Your task to perform on an android device: move a message to another label in the gmail app Image 0: 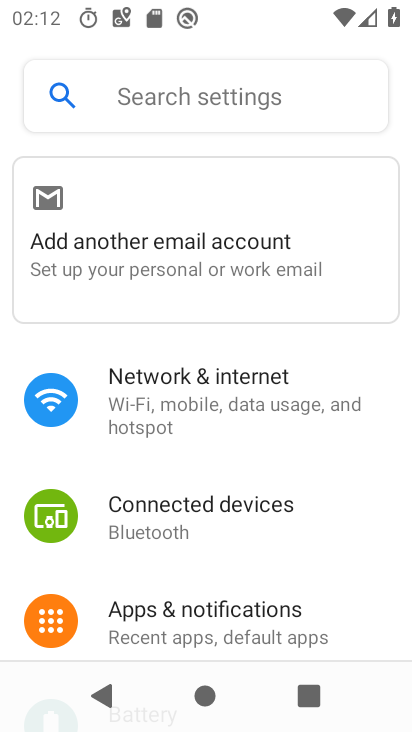
Step 0: drag from (129, 599) to (291, 10)
Your task to perform on an android device: move a message to another label in the gmail app Image 1: 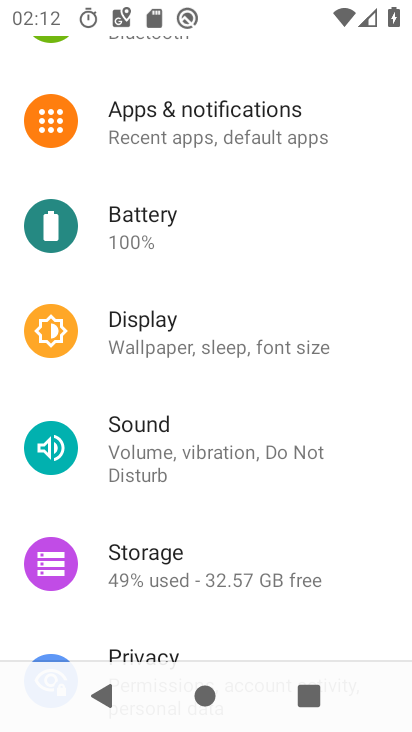
Step 1: drag from (278, 215) to (333, 546)
Your task to perform on an android device: move a message to another label in the gmail app Image 2: 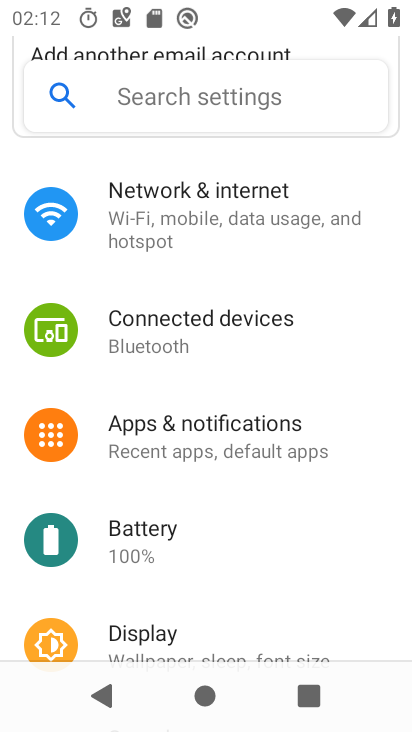
Step 2: press home button
Your task to perform on an android device: move a message to another label in the gmail app Image 3: 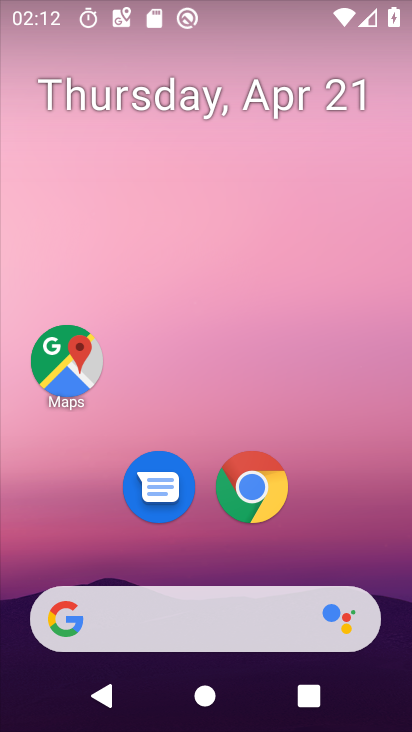
Step 3: drag from (216, 541) to (353, 17)
Your task to perform on an android device: move a message to another label in the gmail app Image 4: 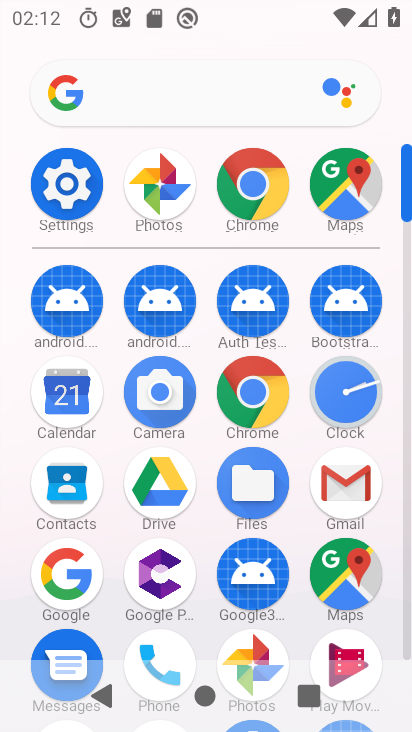
Step 4: click (329, 483)
Your task to perform on an android device: move a message to another label in the gmail app Image 5: 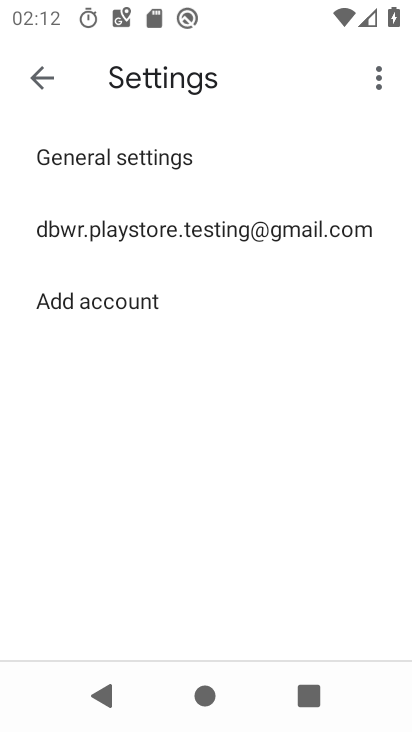
Step 5: click (175, 210)
Your task to perform on an android device: move a message to another label in the gmail app Image 6: 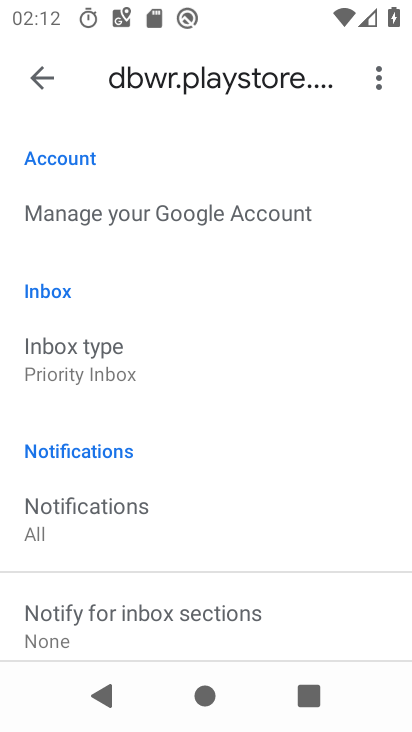
Step 6: drag from (151, 455) to (163, 180)
Your task to perform on an android device: move a message to another label in the gmail app Image 7: 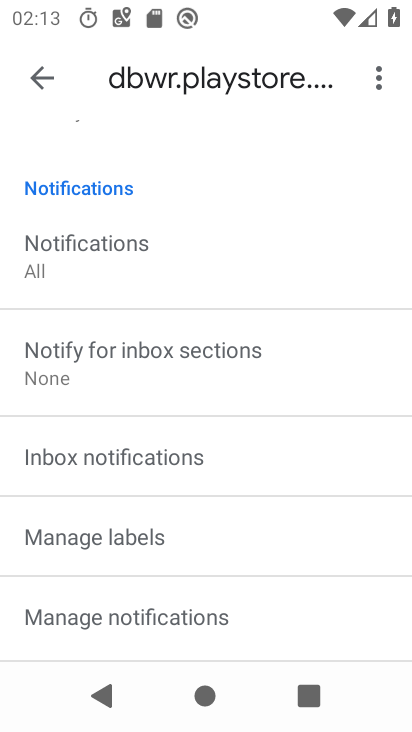
Step 7: click (29, 54)
Your task to perform on an android device: move a message to another label in the gmail app Image 8: 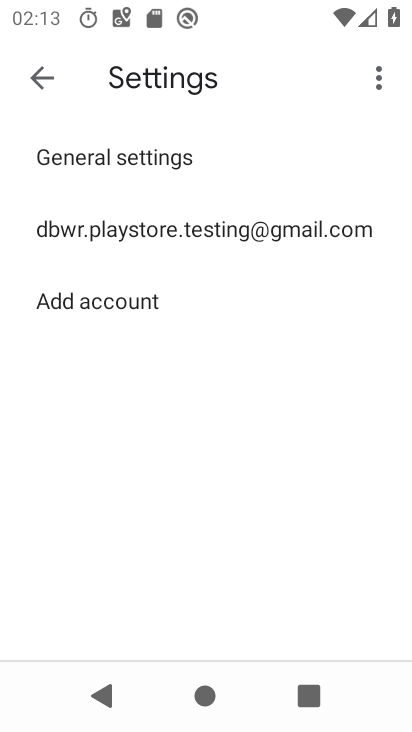
Step 8: click (36, 59)
Your task to perform on an android device: move a message to another label in the gmail app Image 9: 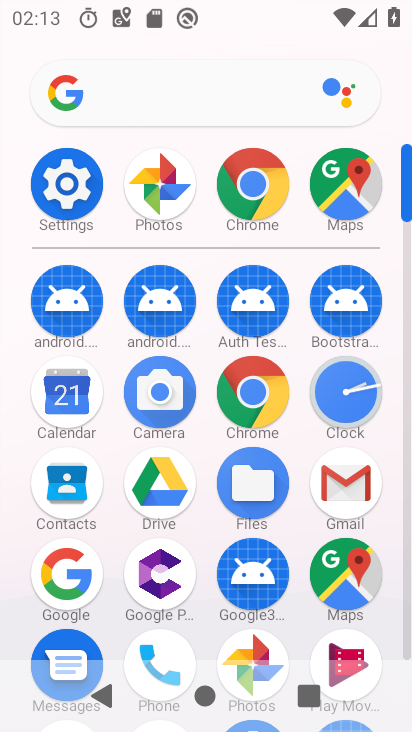
Step 9: click (343, 486)
Your task to perform on an android device: move a message to another label in the gmail app Image 10: 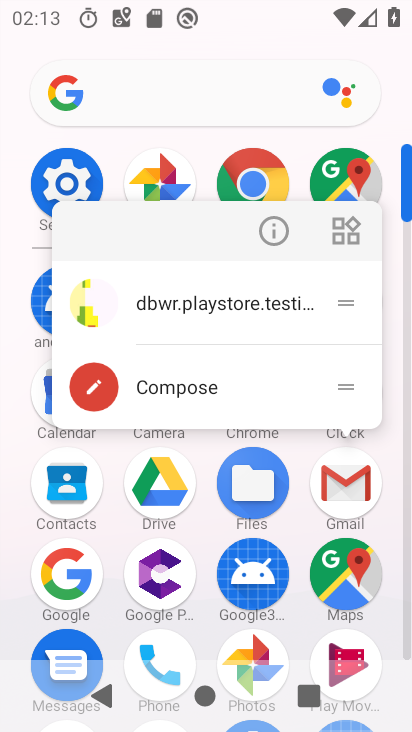
Step 10: click (273, 228)
Your task to perform on an android device: move a message to another label in the gmail app Image 11: 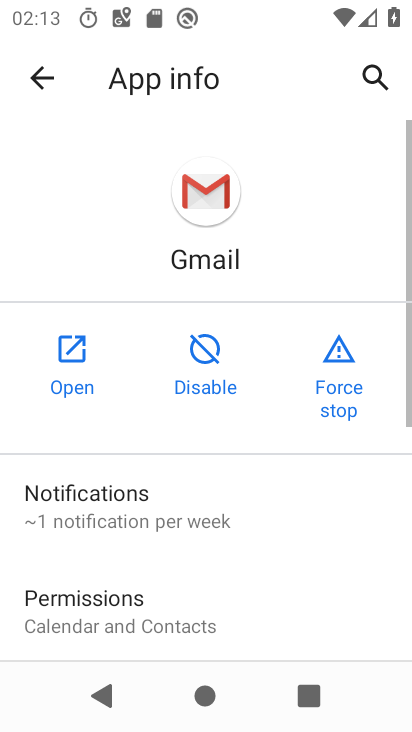
Step 11: click (75, 361)
Your task to perform on an android device: move a message to another label in the gmail app Image 12: 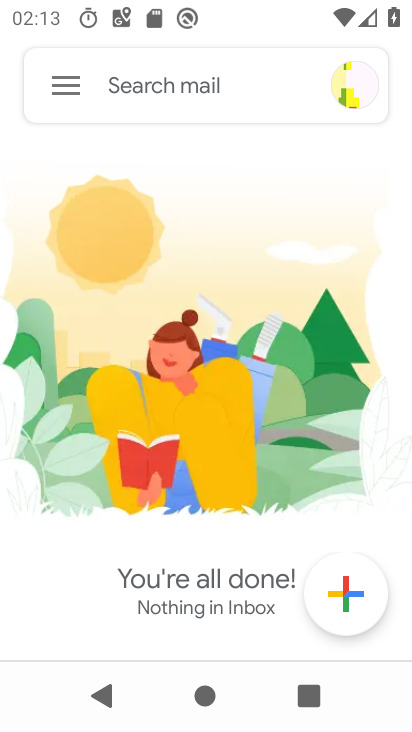
Step 12: task complete